Your task to perform on an android device: allow notifications from all sites in the chrome app Image 0: 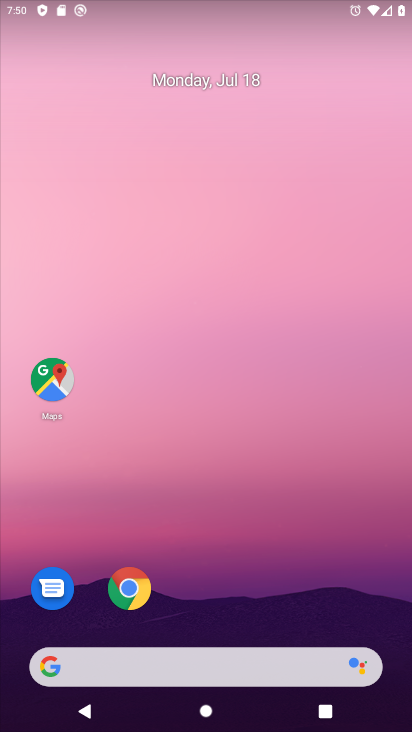
Step 0: drag from (190, 613) to (221, 307)
Your task to perform on an android device: allow notifications from all sites in the chrome app Image 1: 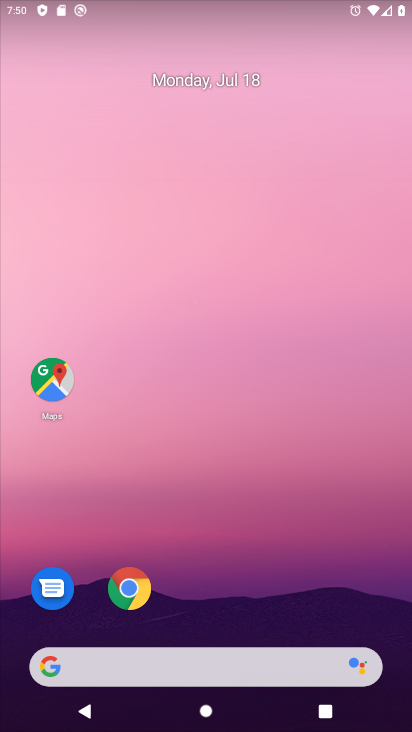
Step 1: click (140, 592)
Your task to perform on an android device: allow notifications from all sites in the chrome app Image 2: 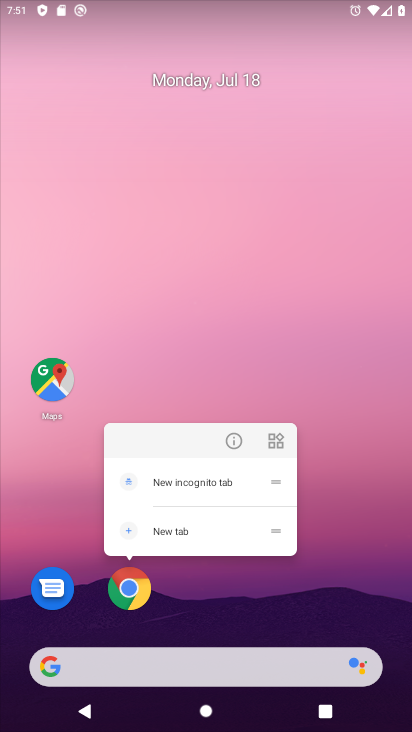
Step 2: click (120, 592)
Your task to perform on an android device: allow notifications from all sites in the chrome app Image 3: 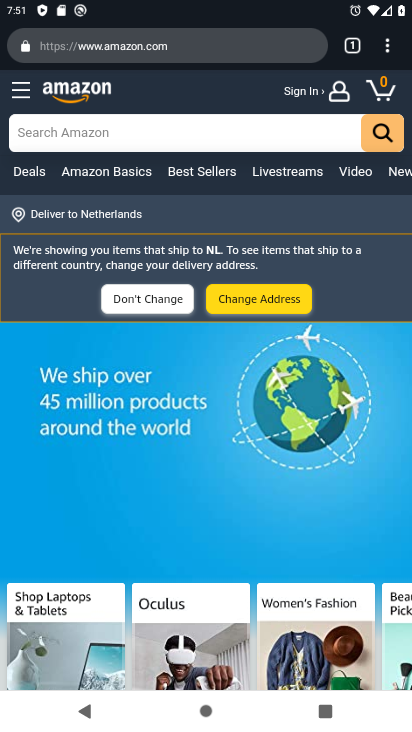
Step 3: click (387, 47)
Your task to perform on an android device: allow notifications from all sites in the chrome app Image 4: 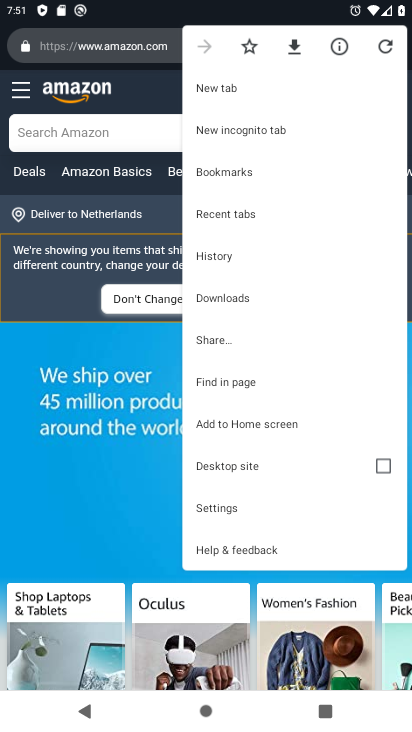
Step 4: click (215, 513)
Your task to perform on an android device: allow notifications from all sites in the chrome app Image 5: 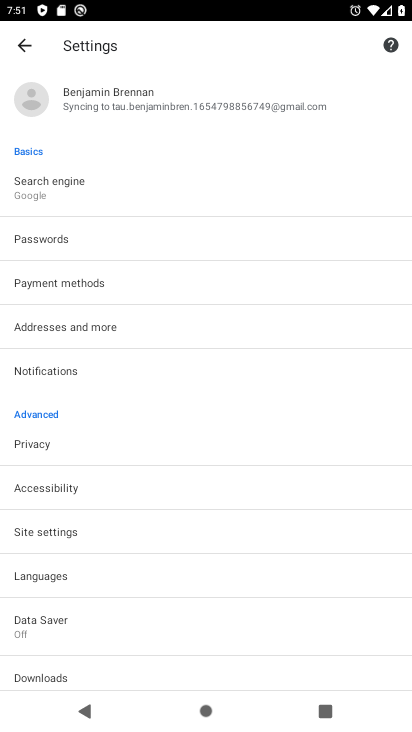
Step 5: click (37, 366)
Your task to perform on an android device: allow notifications from all sites in the chrome app Image 6: 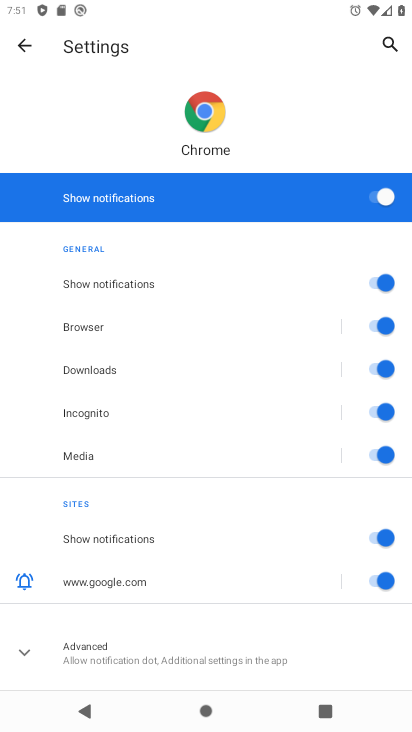
Step 6: task complete